Your task to perform on an android device: Open Google Maps and go to "Timeline" Image 0: 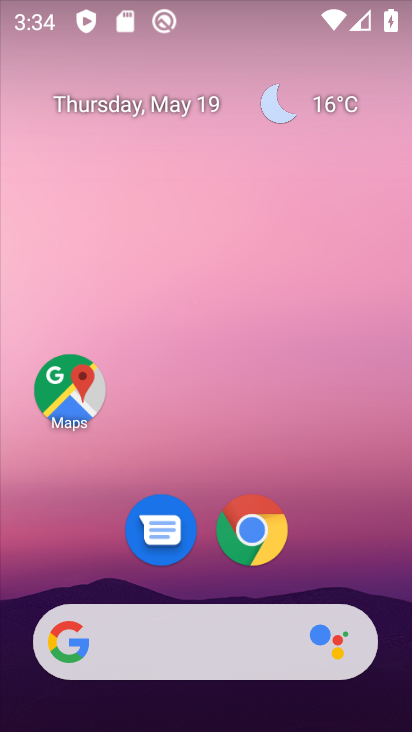
Step 0: click (84, 396)
Your task to perform on an android device: Open Google Maps and go to "Timeline" Image 1: 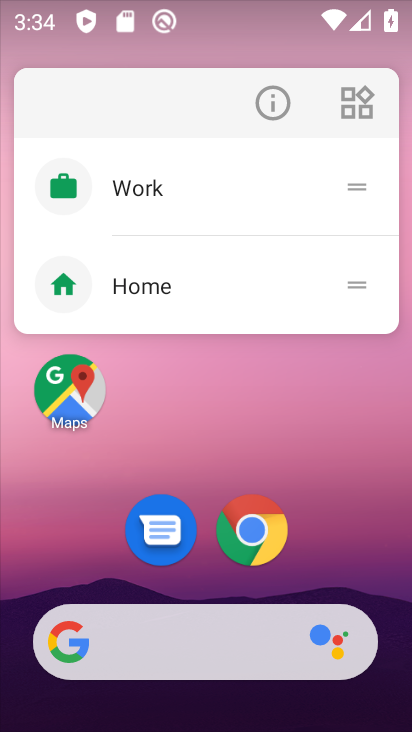
Step 1: click (91, 395)
Your task to perform on an android device: Open Google Maps and go to "Timeline" Image 2: 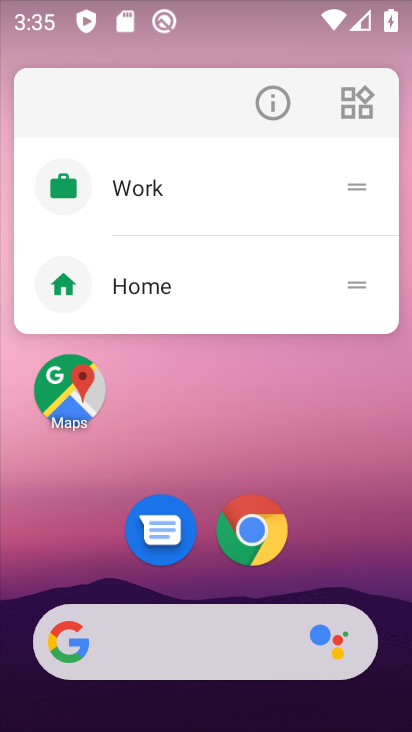
Step 2: click (95, 379)
Your task to perform on an android device: Open Google Maps and go to "Timeline" Image 3: 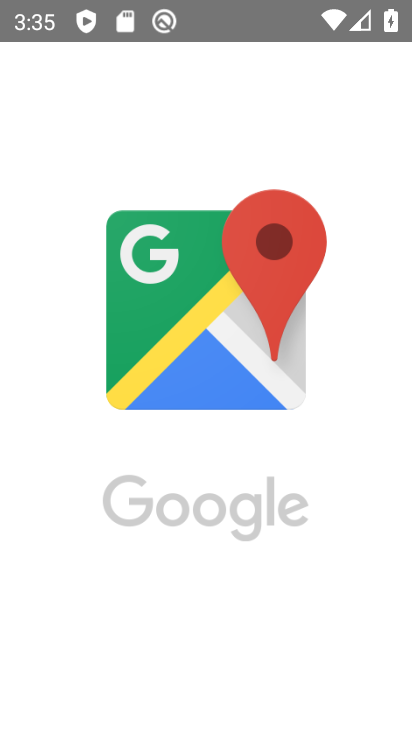
Step 3: click (62, 415)
Your task to perform on an android device: Open Google Maps and go to "Timeline" Image 4: 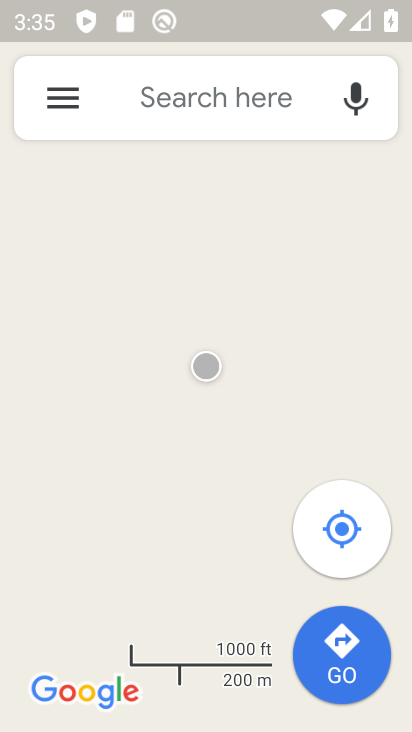
Step 4: click (63, 100)
Your task to perform on an android device: Open Google Maps and go to "Timeline" Image 5: 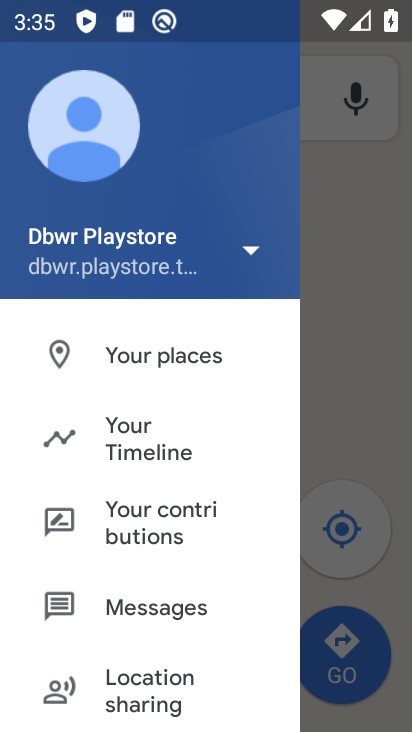
Step 5: click (201, 438)
Your task to perform on an android device: Open Google Maps and go to "Timeline" Image 6: 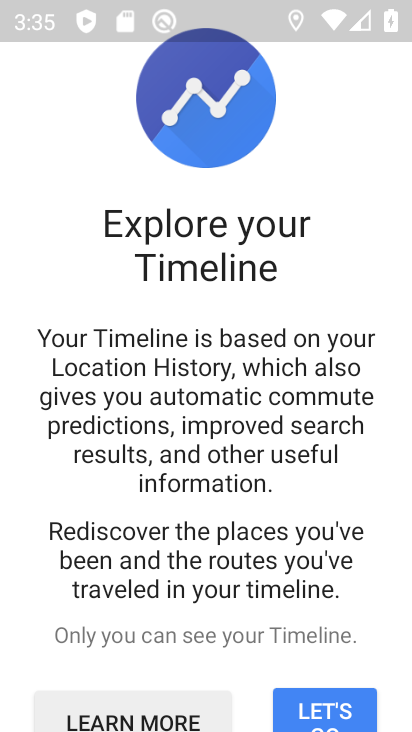
Step 6: click (315, 702)
Your task to perform on an android device: Open Google Maps and go to "Timeline" Image 7: 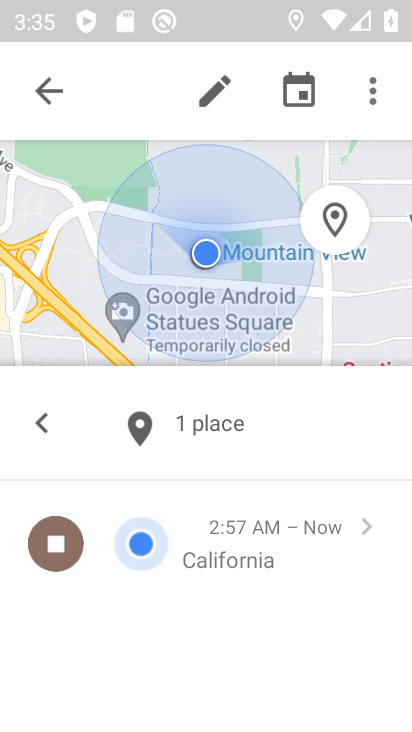
Step 7: task complete